Your task to perform on an android device: turn off location Image 0: 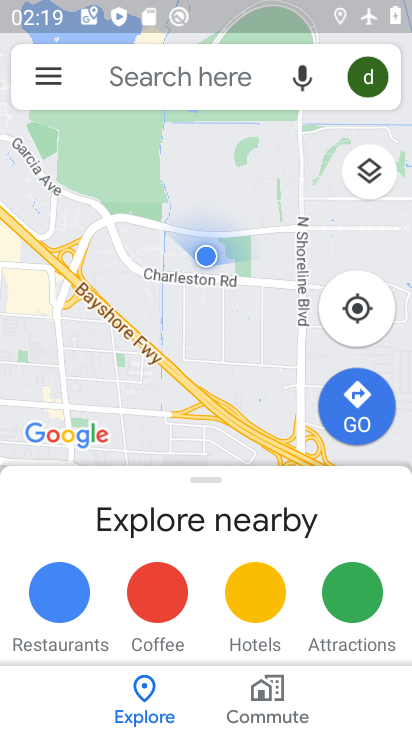
Step 0: press home button
Your task to perform on an android device: turn off location Image 1: 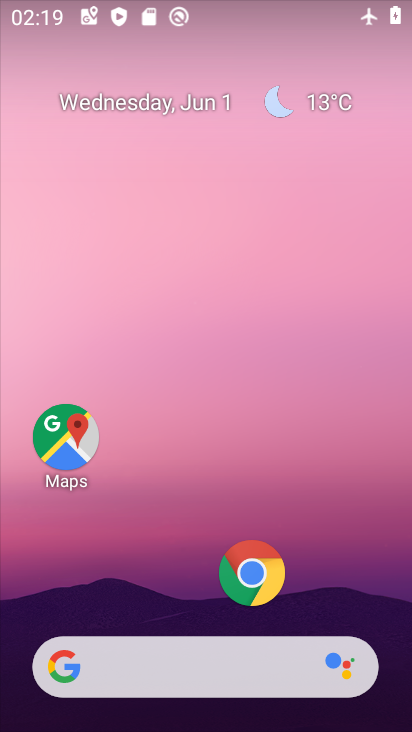
Step 1: drag from (169, 598) to (135, 32)
Your task to perform on an android device: turn off location Image 2: 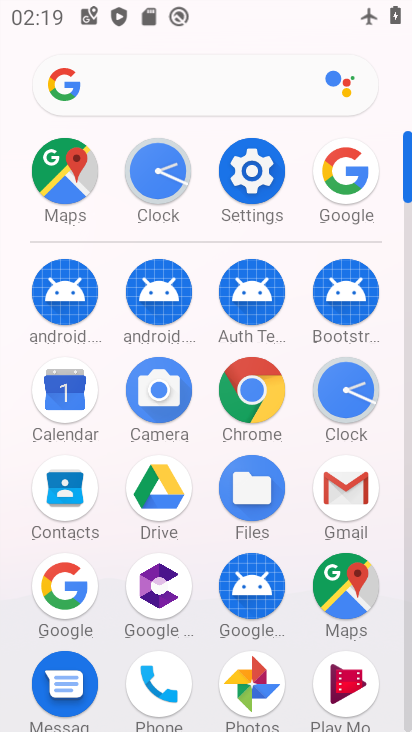
Step 2: click (246, 176)
Your task to perform on an android device: turn off location Image 3: 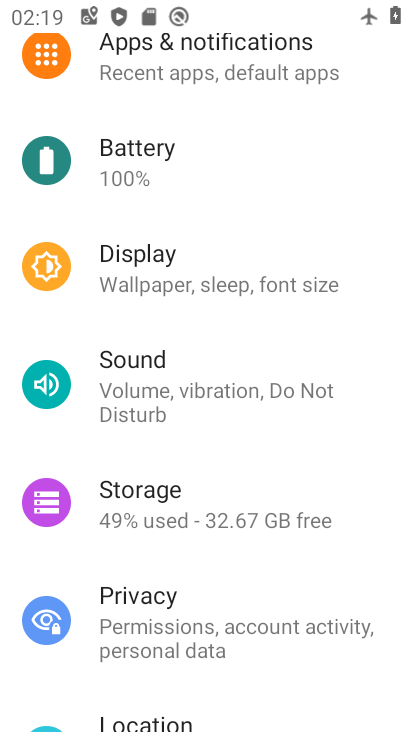
Step 3: drag from (185, 611) to (169, 224)
Your task to perform on an android device: turn off location Image 4: 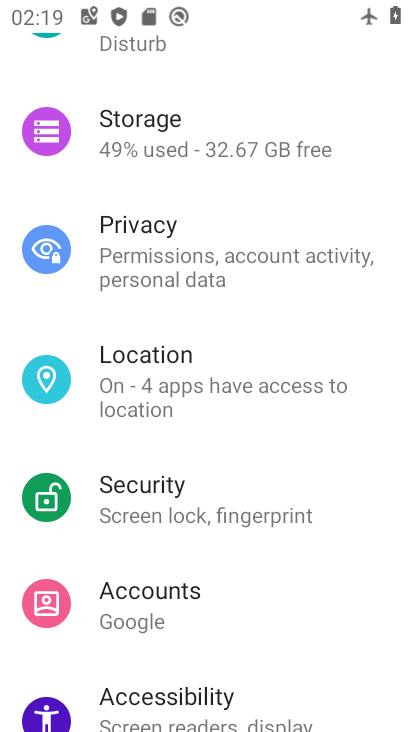
Step 4: click (163, 389)
Your task to perform on an android device: turn off location Image 5: 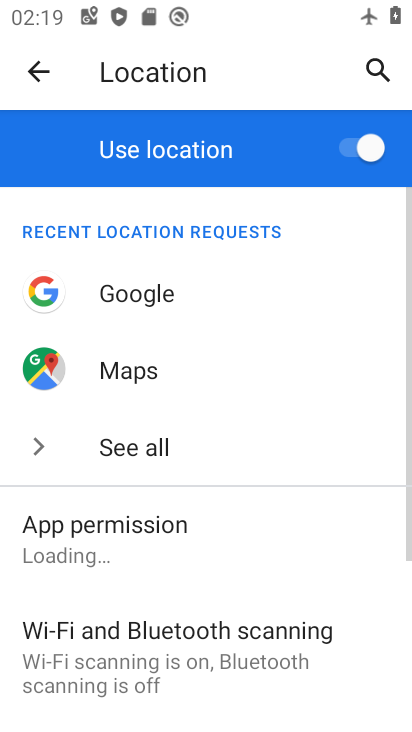
Step 5: click (349, 160)
Your task to perform on an android device: turn off location Image 6: 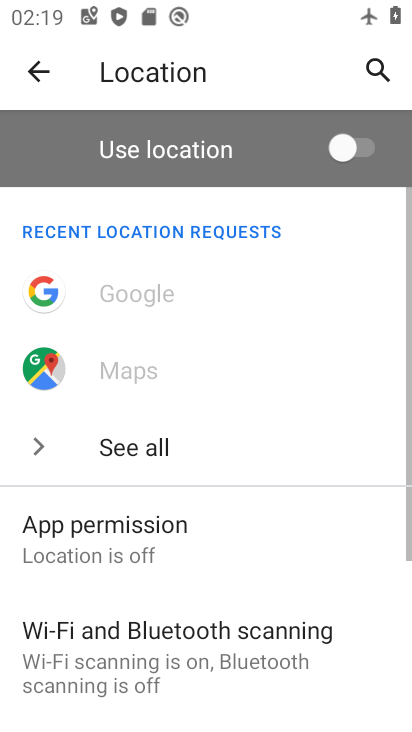
Step 6: task complete